Your task to perform on an android device: turn notification dots on Image 0: 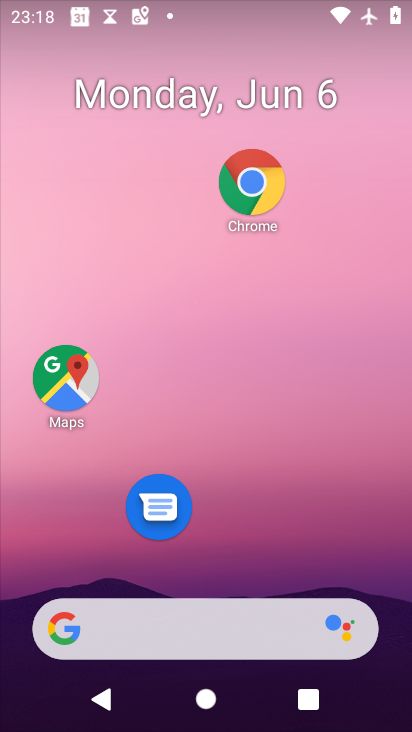
Step 0: drag from (252, 569) to (251, 320)
Your task to perform on an android device: turn notification dots on Image 1: 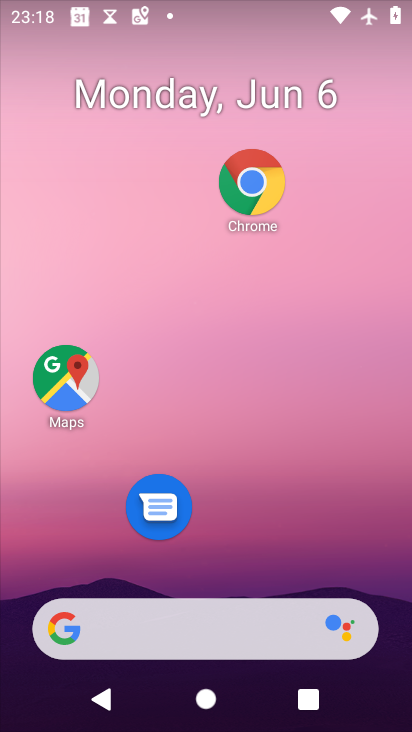
Step 1: drag from (225, 439) to (225, 268)
Your task to perform on an android device: turn notification dots on Image 2: 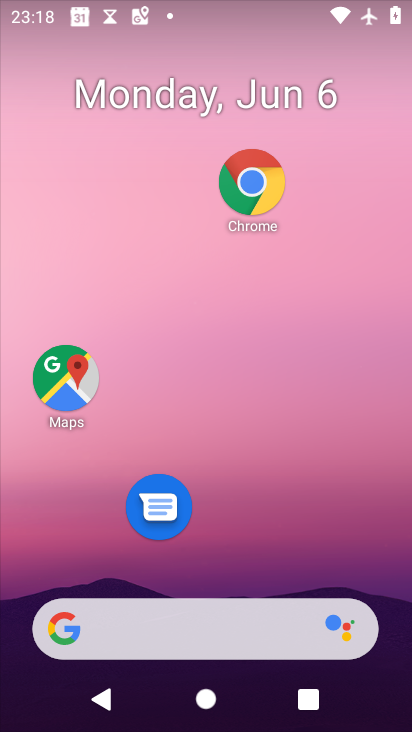
Step 2: drag from (252, 587) to (219, 303)
Your task to perform on an android device: turn notification dots on Image 3: 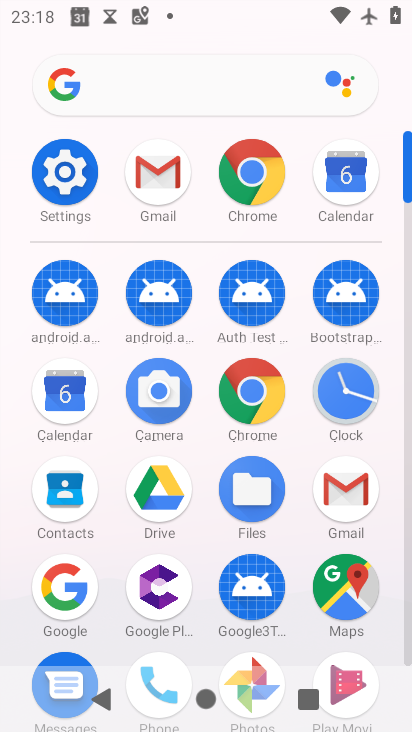
Step 3: click (80, 164)
Your task to perform on an android device: turn notification dots on Image 4: 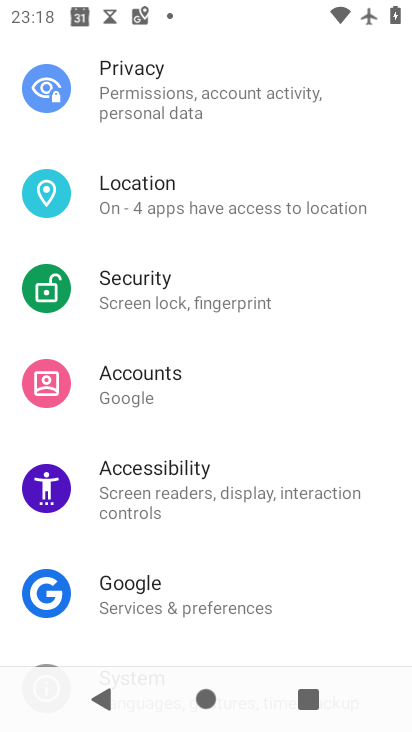
Step 4: drag from (195, 140) to (218, 566)
Your task to perform on an android device: turn notification dots on Image 5: 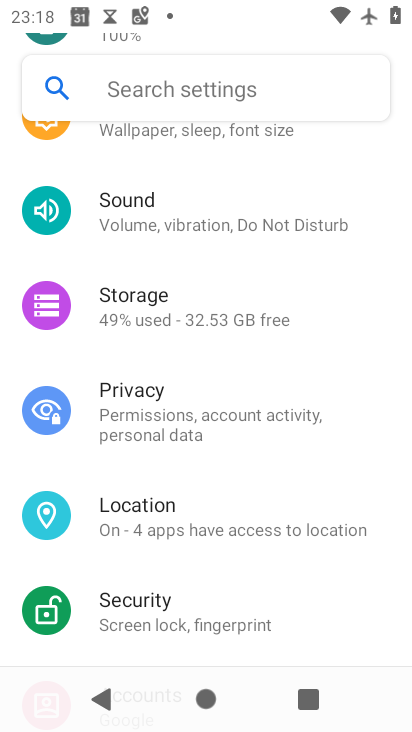
Step 5: click (153, 83)
Your task to perform on an android device: turn notification dots on Image 6: 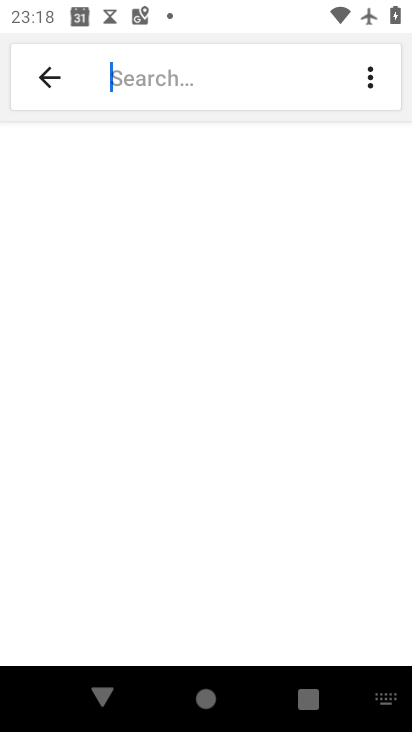
Step 6: click (200, 70)
Your task to perform on an android device: turn notification dots on Image 7: 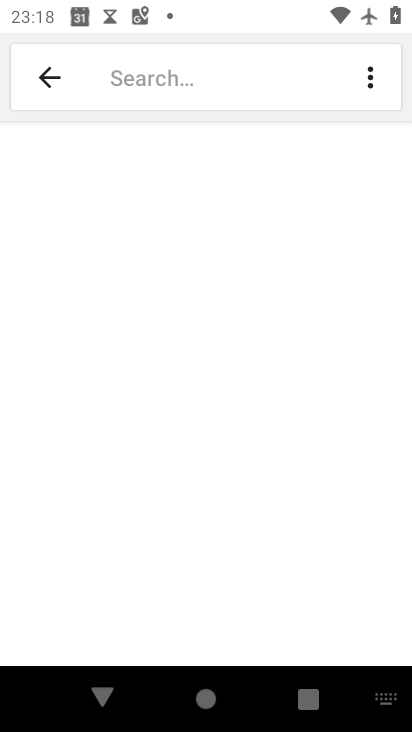
Step 7: type "notification dots"
Your task to perform on an android device: turn notification dots on Image 8: 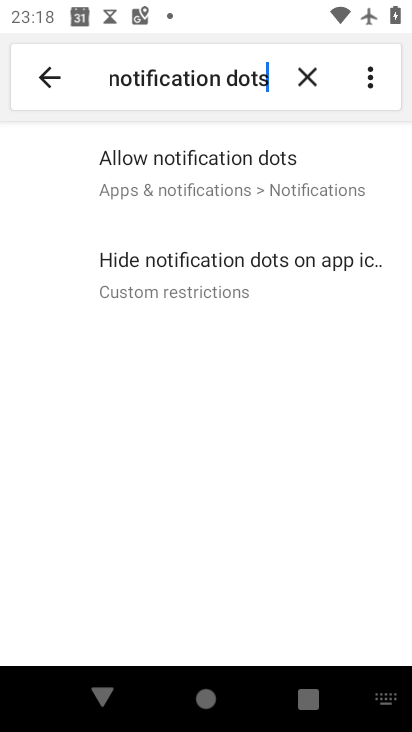
Step 8: click (241, 168)
Your task to perform on an android device: turn notification dots on Image 9: 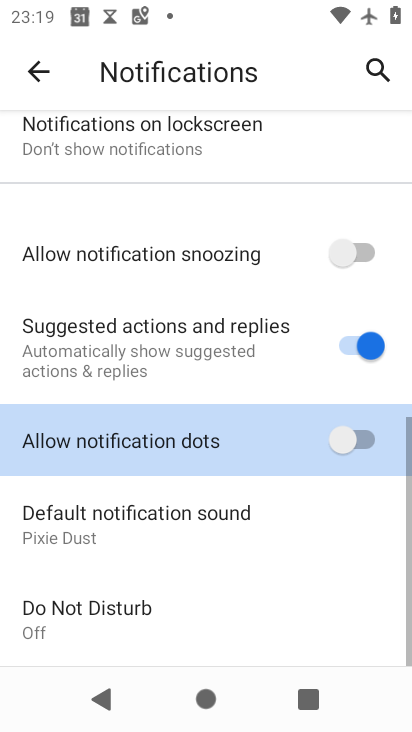
Step 9: click (355, 439)
Your task to perform on an android device: turn notification dots on Image 10: 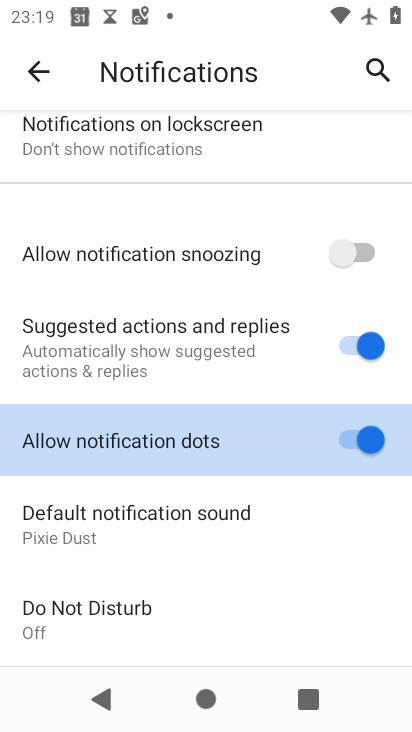
Step 10: task complete